Your task to perform on an android device: turn smart compose on in the gmail app Image 0: 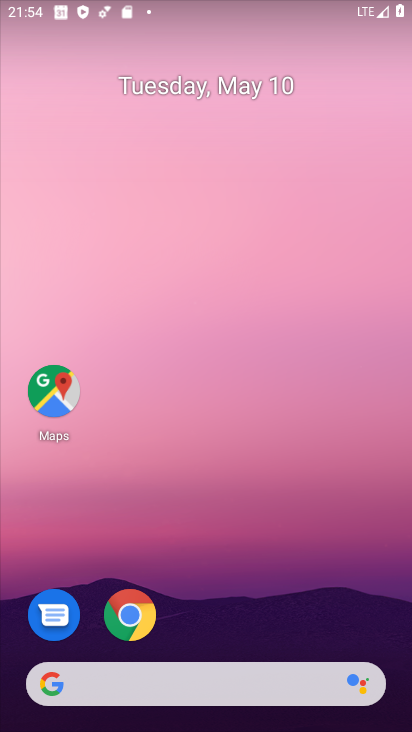
Step 0: drag from (240, 582) to (305, 79)
Your task to perform on an android device: turn smart compose on in the gmail app Image 1: 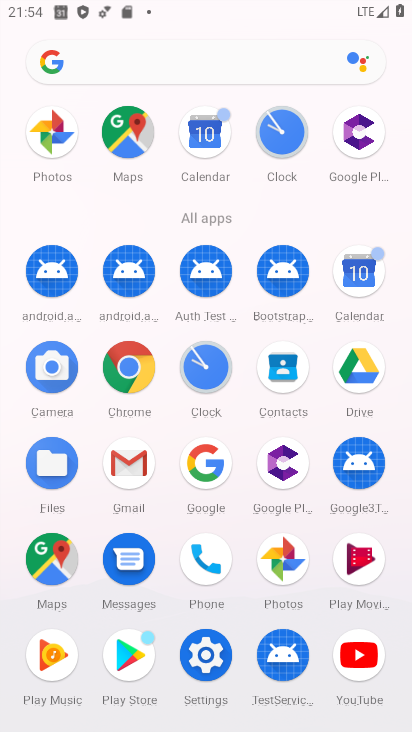
Step 1: click (120, 467)
Your task to perform on an android device: turn smart compose on in the gmail app Image 2: 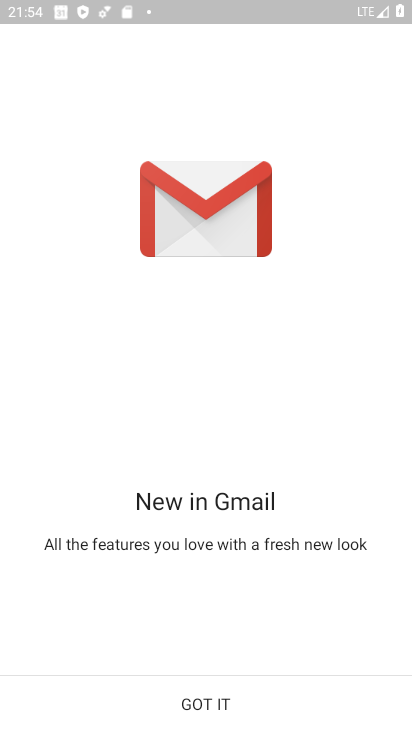
Step 2: click (201, 721)
Your task to perform on an android device: turn smart compose on in the gmail app Image 3: 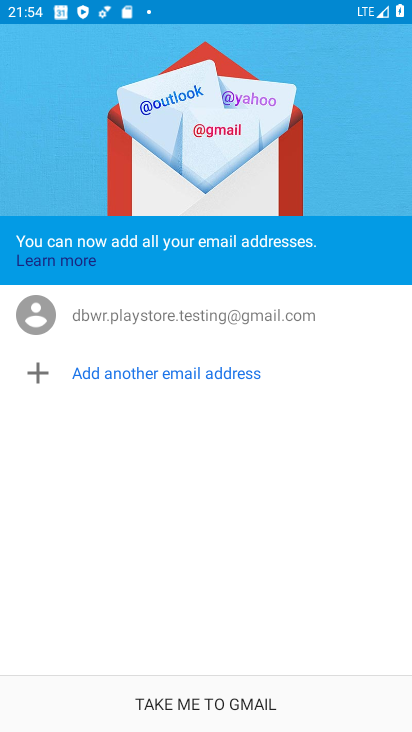
Step 3: click (218, 703)
Your task to perform on an android device: turn smart compose on in the gmail app Image 4: 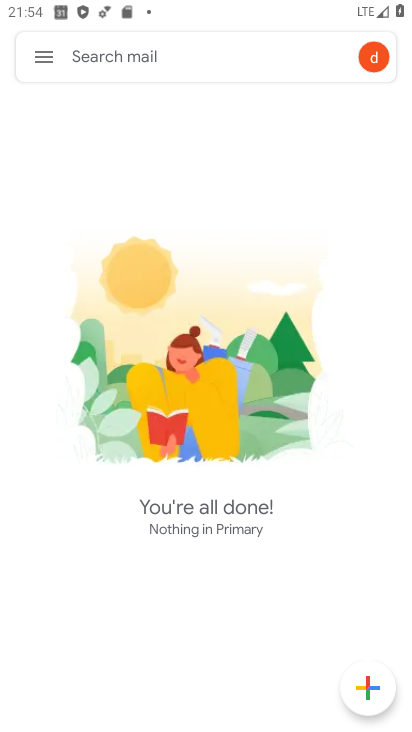
Step 4: click (26, 54)
Your task to perform on an android device: turn smart compose on in the gmail app Image 5: 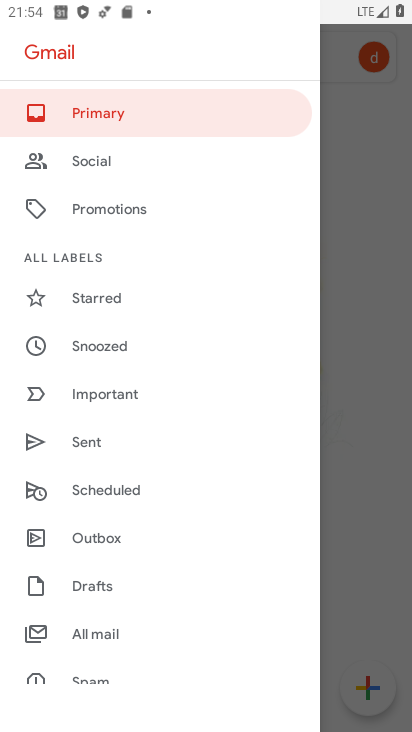
Step 5: drag from (149, 641) to (282, 110)
Your task to perform on an android device: turn smart compose on in the gmail app Image 6: 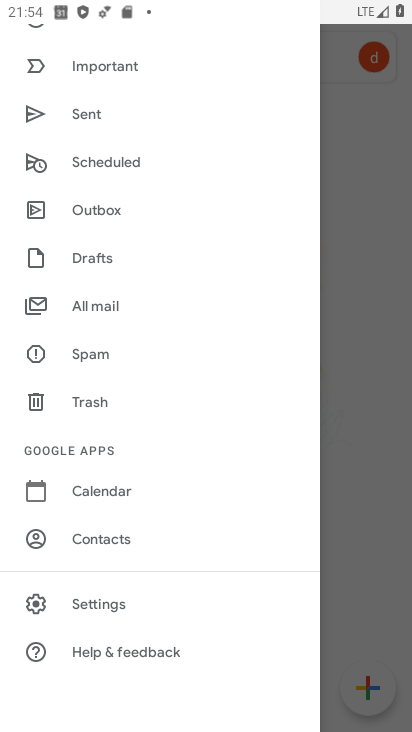
Step 6: click (92, 607)
Your task to perform on an android device: turn smart compose on in the gmail app Image 7: 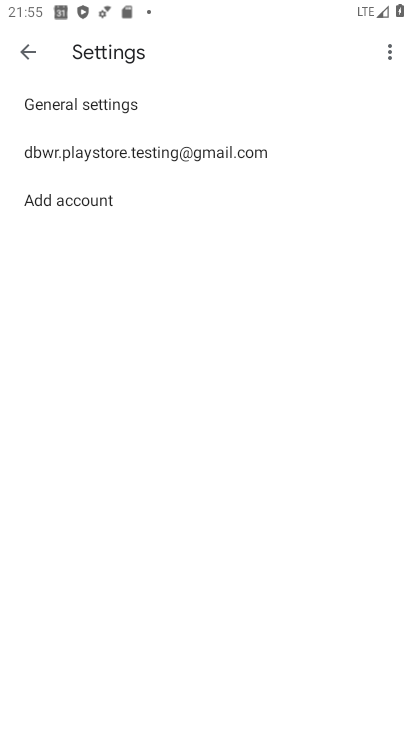
Step 7: click (129, 149)
Your task to perform on an android device: turn smart compose on in the gmail app Image 8: 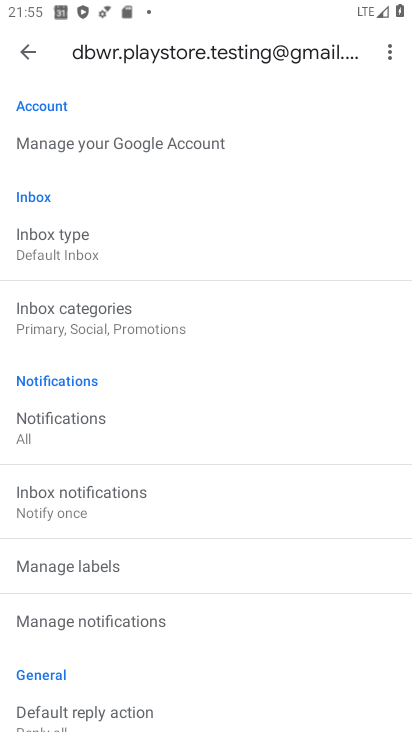
Step 8: task complete